Your task to perform on an android device: turn pop-ups off in chrome Image 0: 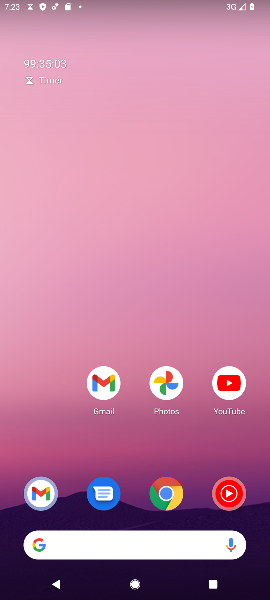
Step 0: drag from (143, 508) to (150, 187)
Your task to perform on an android device: turn pop-ups off in chrome Image 1: 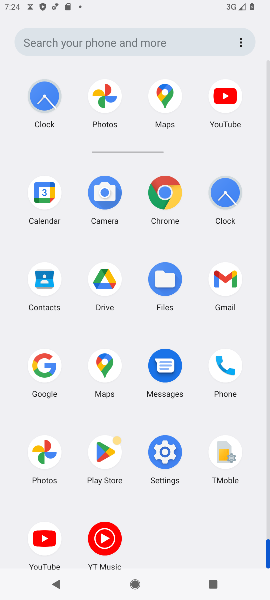
Step 1: click (167, 185)
Your task to perform on an android device: turn pop-ups off in chrome Image 2: 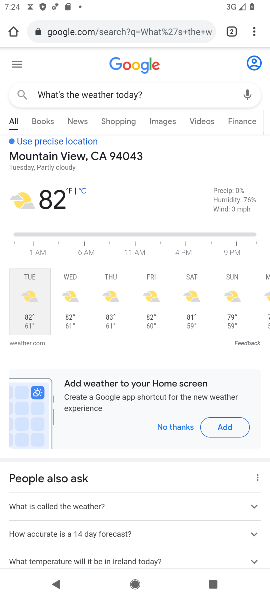
Step 2: click (255, 24)
Your task to perform on an android device: turn pop-ups off in chrome Image 3: 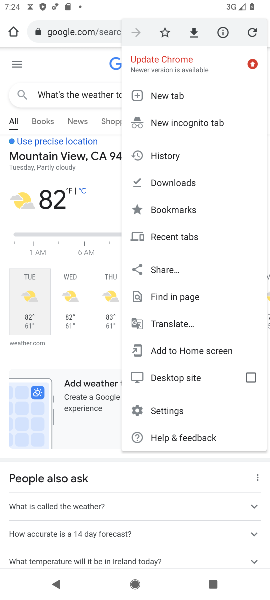
Step 3: click (157, 407)
Your task to perform on an android device: turn pop-ups off in chrome Image 4: 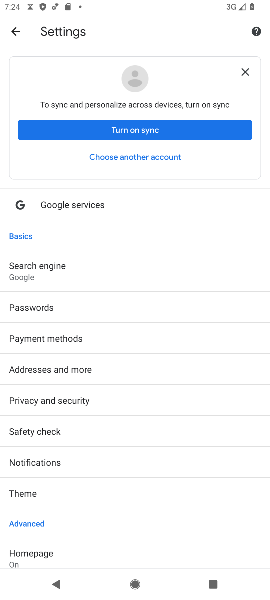
Step 4: drag from (65, 528) to (141, 263)
Your task to perform on an android device: turn pop-ups off in chrome Image 5: 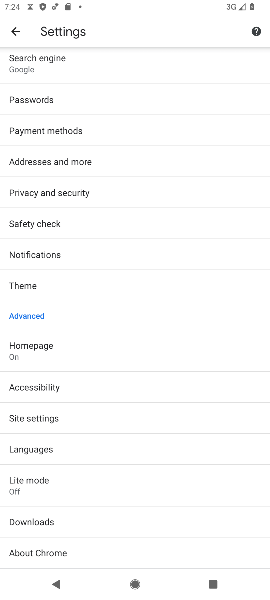
Step 5: click (59, 419)
Your task to perform on an android device: turn pop-ups off in chrome Image 6: 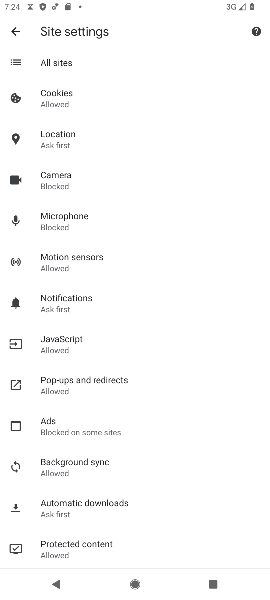
Step 6: click (118, 388)
Your task to perform on an android device: turn pop-ups off in chrome Image 7: 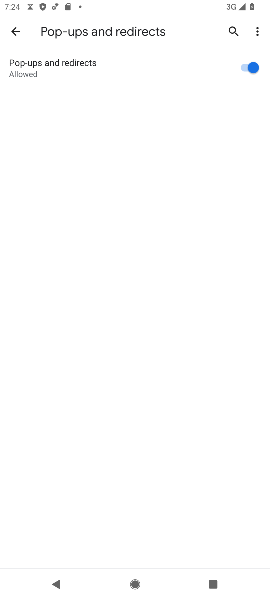
Step 7: click (244, 66)
Your task to perform on an android device: turn pop-ups off in chrome Image 8: 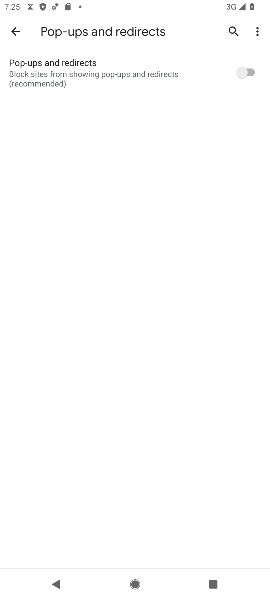
Step 8: task complete